Your task to perform on an android device: turn off translation in the chrome app Image 0: 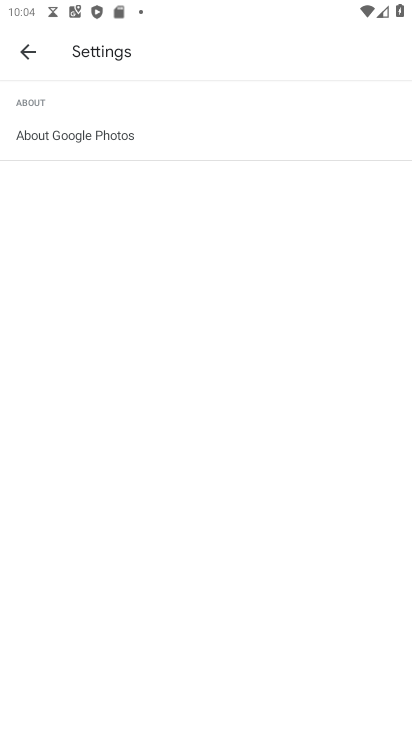
Step 0: press home button
Your task to perform on an android device: turn off translation in the chrome app Image 1: 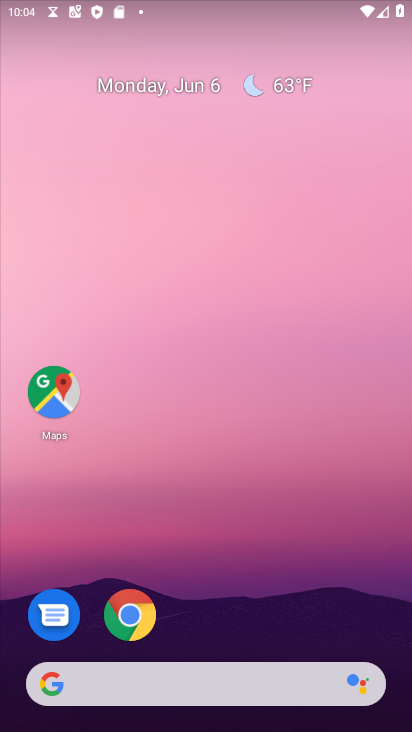
Step 1: click (129, 610)
Your task to perform on an android device: turn off translation in the chrome app Image 2: 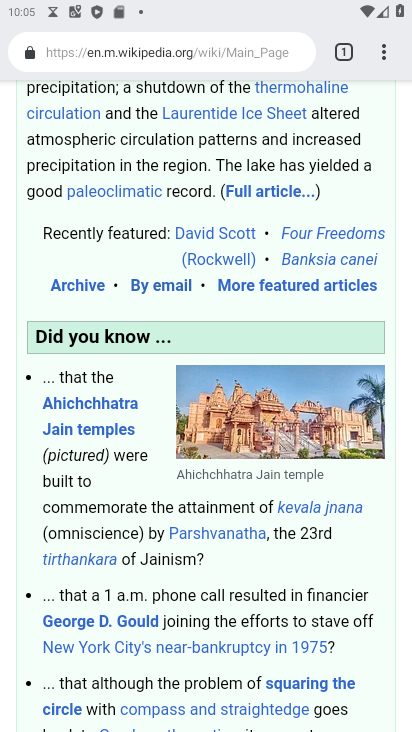
Step 2: click (383, 47)
Your task to perform on an android device: turn off translation in the chrome app Image 3: 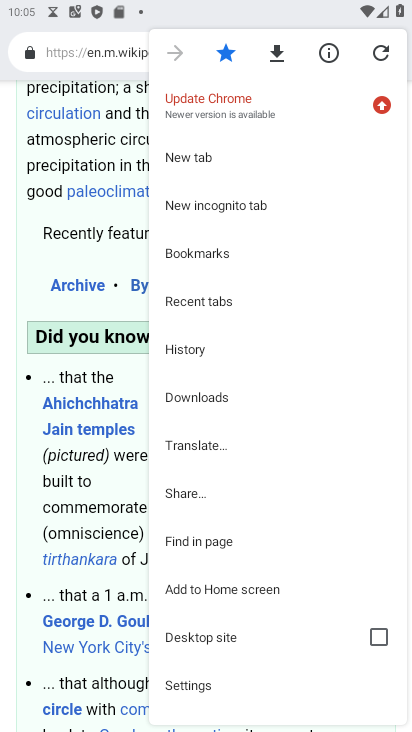
Step 3: click (229, 682)
Your task to perform on an android device: turn off translation in the chrome app Image 4: 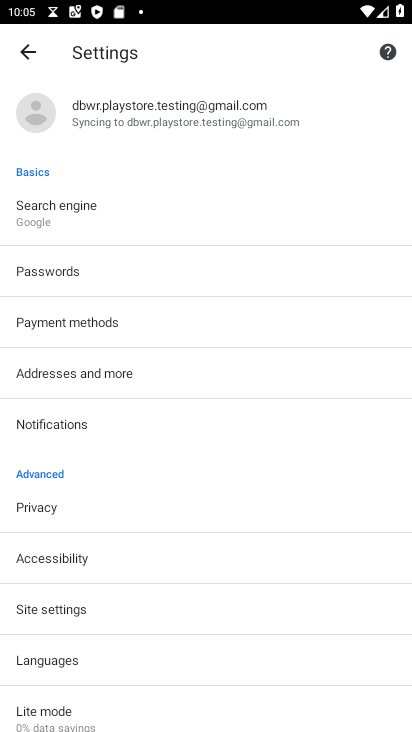
Step 4: click (88, 655)
Your task to perform on an android device: turn off translation in the chrome app Image 5: 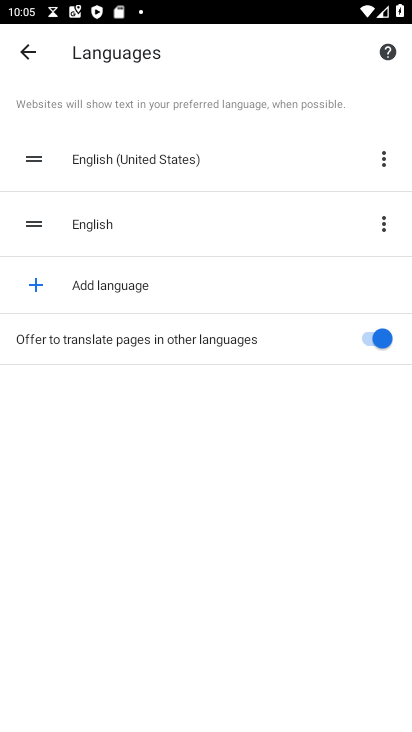
Step 5: click (362, 335)
Your task to perform on an android device: turn off translation in the chrome app Image 6: 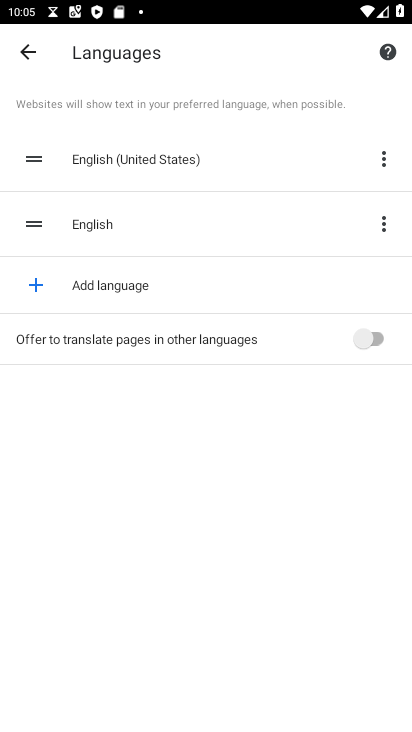
Step 6: task complete